Your task to perform on an android device: Open the map Image 0: 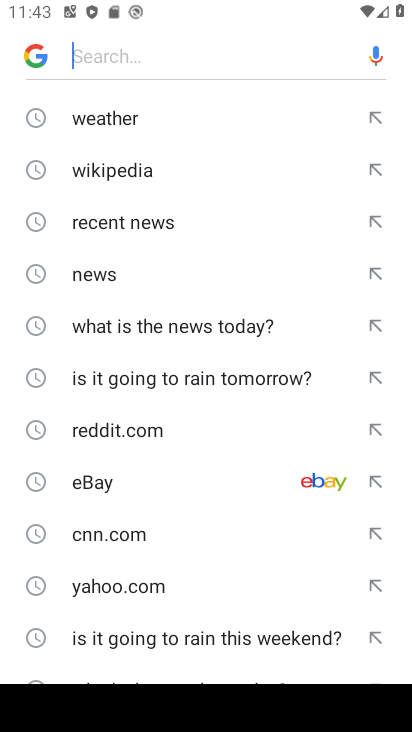
Step 0: press home button
Your task to perform on an android device: Open the map Image 1: 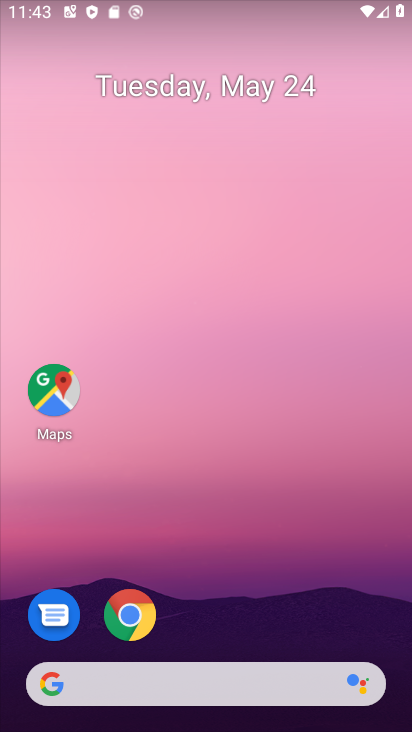
Step 1: drag from (246, 576) to (202, 135)
Your task to perform on an android device: Open the map Image 2: 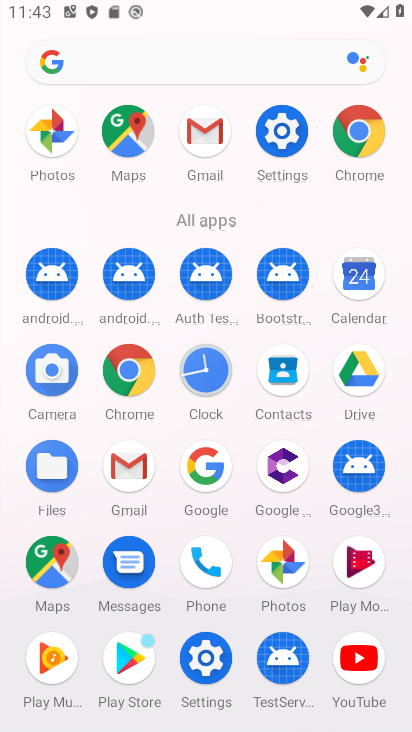
Step 2: click (49, 564)
Your task to perform on an android device: Open the map Image 3: 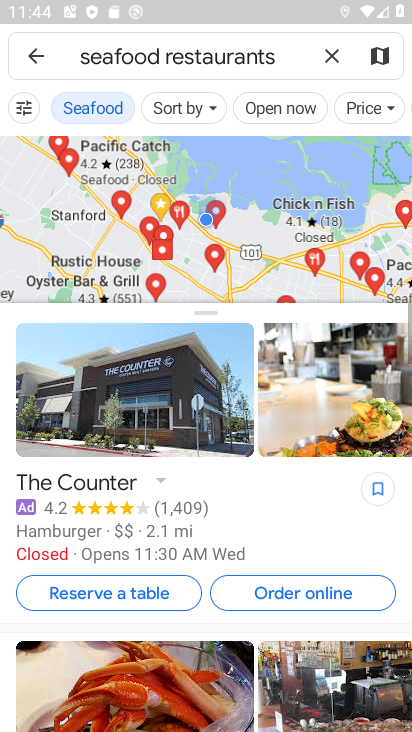
Step 3: click (324, 52)
Your task to perform on an android device: Open the map Image 4: 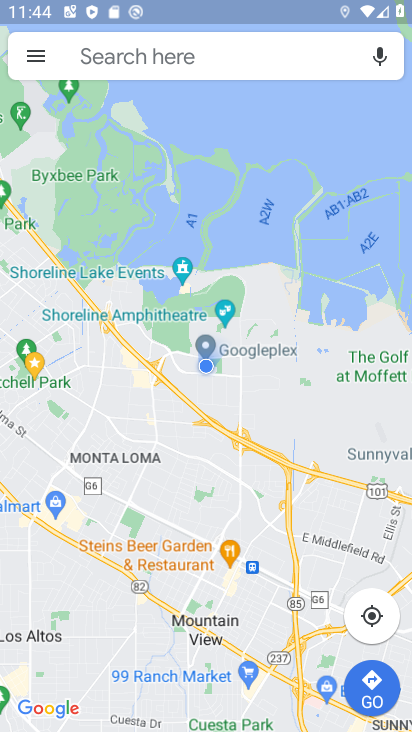
Step 4: task complete